Your task to perform on an android device: turn off notifications in google photos Image 0: 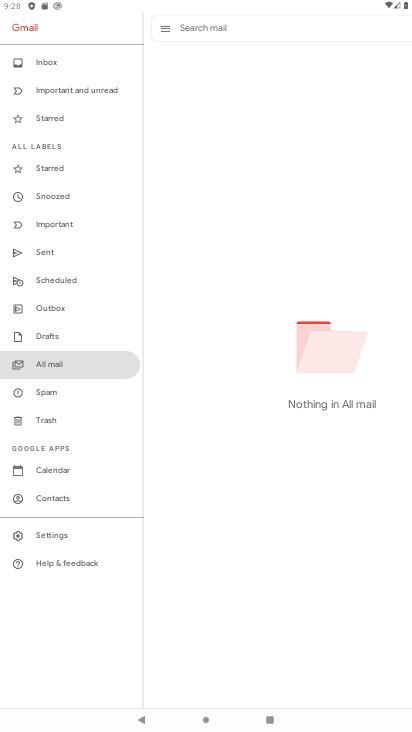
Step 0: press home button
Your task to perform on an android device: turn off notifications in google photos Image 1: 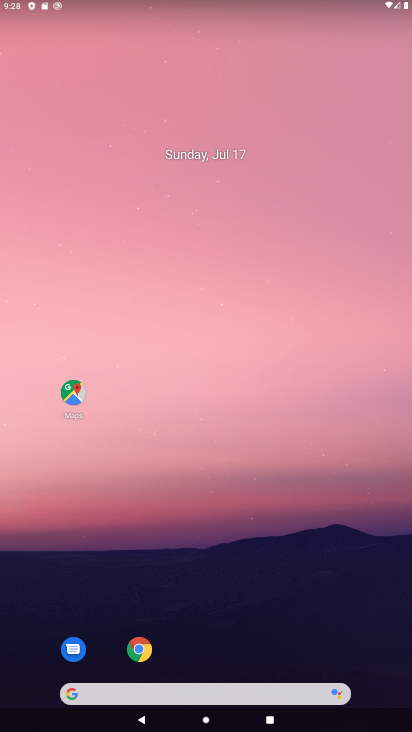
Step 1: drag from (28, 701) to (268, 45)
Your task to perform on an android device: turn off notifications in google photos Image 2: 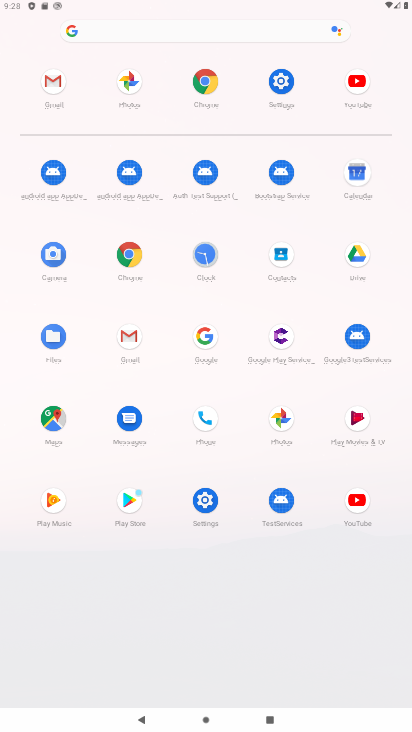
Step 2: click (271, 412)
Your task to perform on an android device: turn off notifications in google photos Image 3: 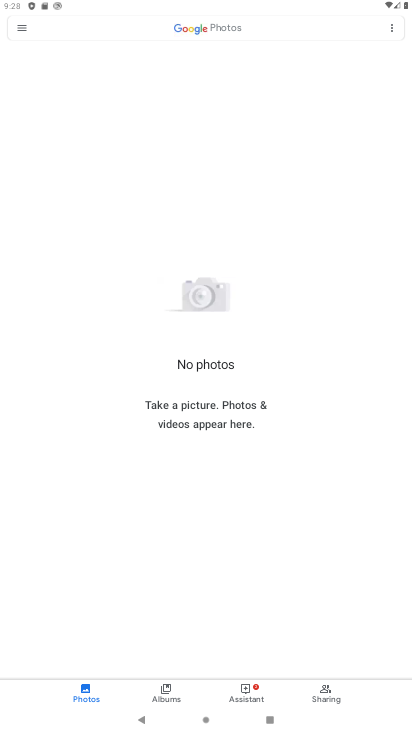
Step 3: click (19, 17)
Your task to perform on an android device: turn off notifications in google photos Image 4: 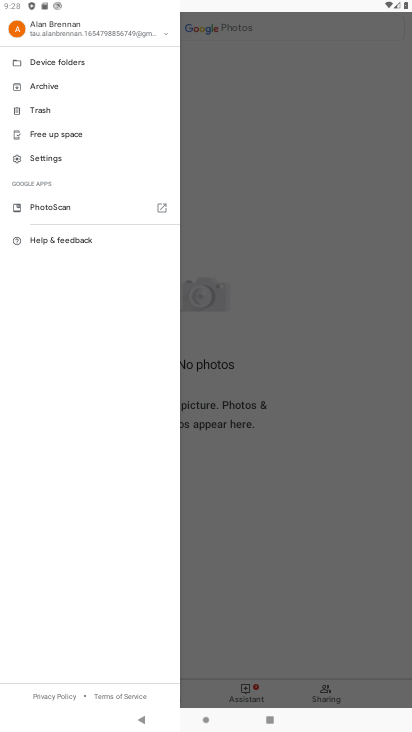
Step 4: click (59, 154)
Your task to perform on an android device: turn off notifications in google photos Image 5: 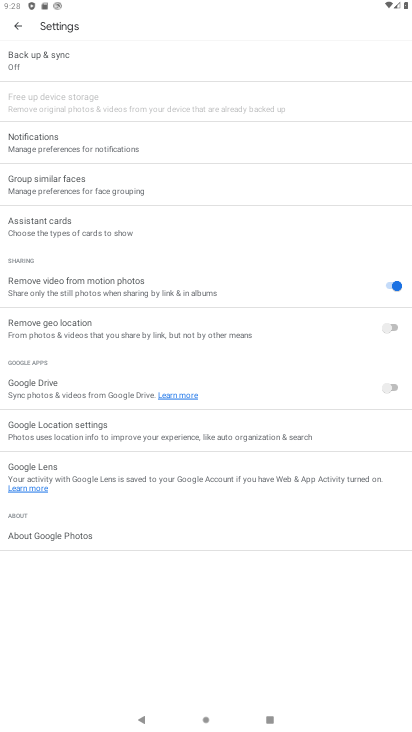
Step 5: click (59, 143)
Your task to perform on an android device: turn off notifications in google photos Image 6: 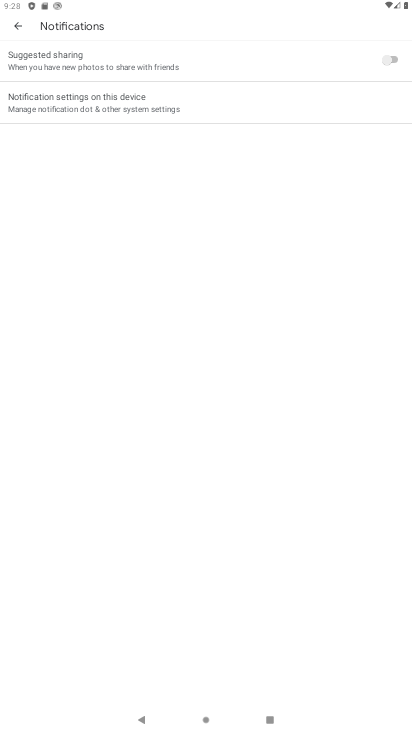
Step 6: click (116, 101)
Your task to perform on an android device: turn off notifications in google photos Image 7: 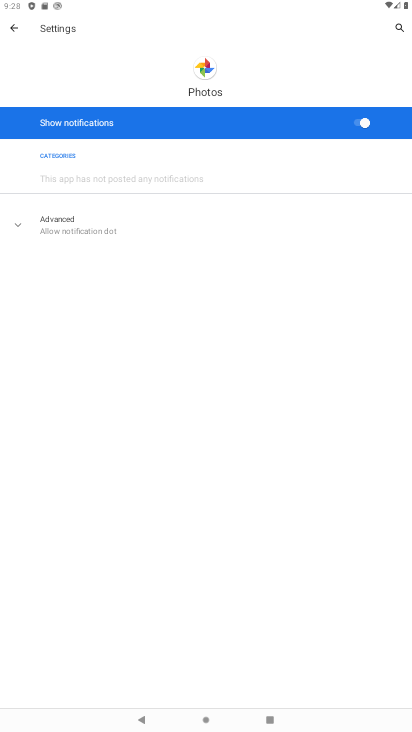
Step 7: click (367, 121)
Your task to perform on an android device: turn off notifications in google photos Image 8: 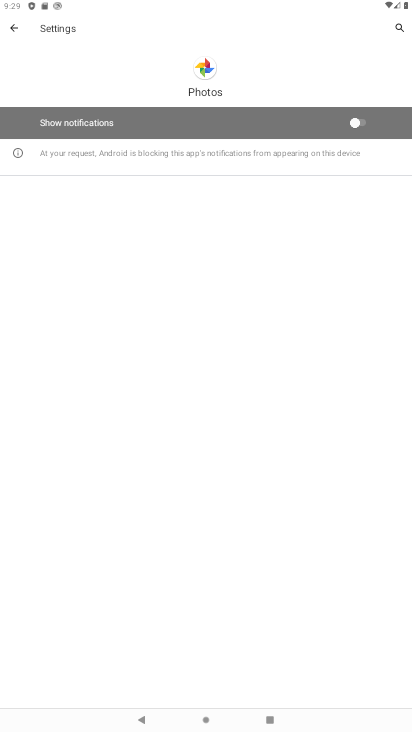
Step 8: task complete